Your task to perform on an android device: turn off priority inbox in the gmail app Image 0: 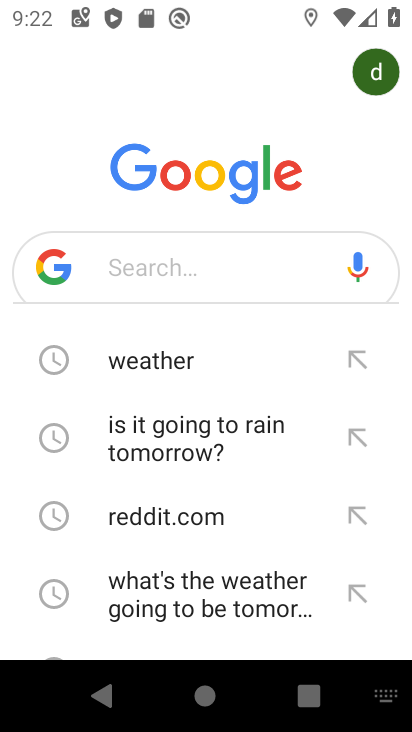
Step 0: press home button
Your task to perform on an android device: turn off priority inbox in the gmail app Image 1: 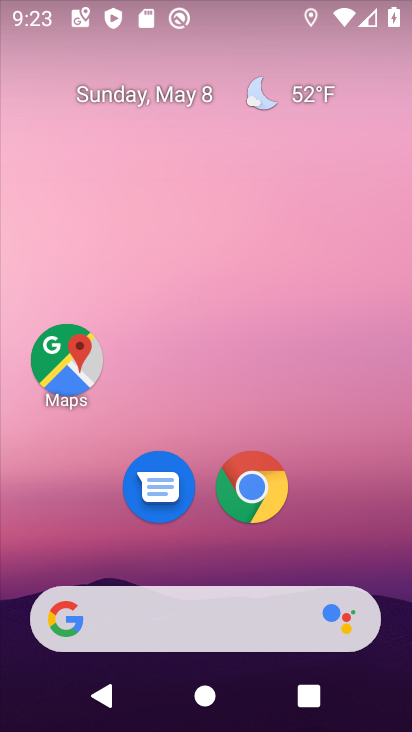
Step 1: drag from (386, 633) to (274, 55)
Your task to perform on an android device: turn off priority inbox in the gmail app Image 2: 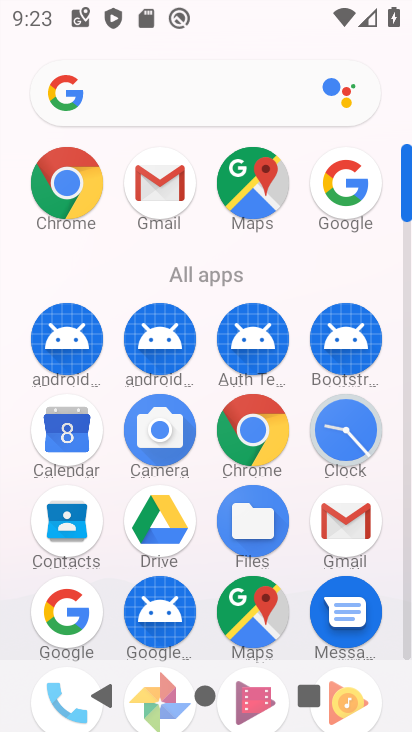
Step 2: click (369, 507)
Your task to perform on an android device: turn off priority inbox in the gmail app Image 3: 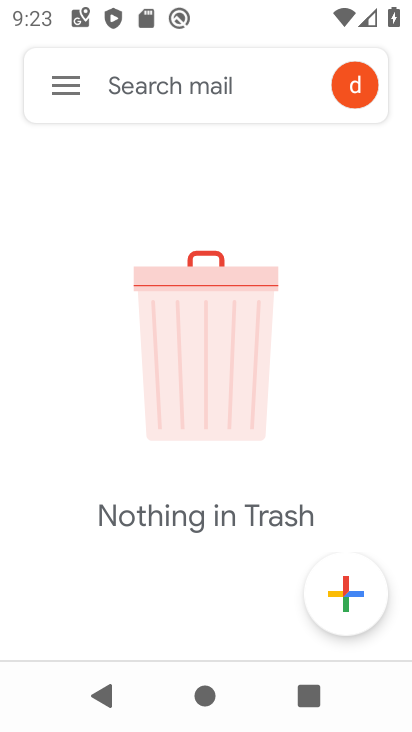
Step 3: click (70, 87)
Your task to perform on an android device: turn off priority inbox in the gmail app Image 4: 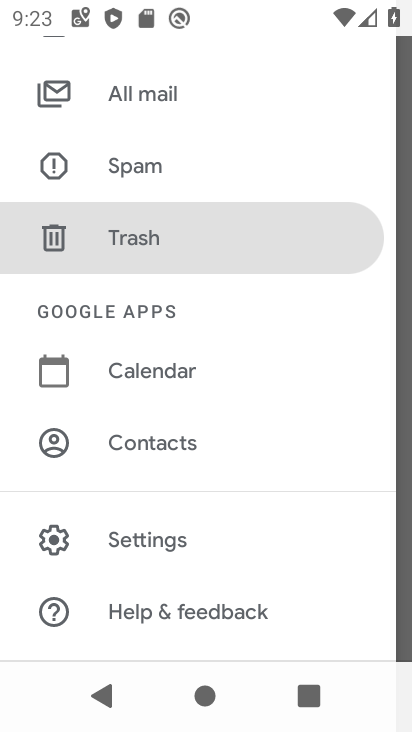
Step 4: click (176, 534)
Your task to perform on an android device: turn off priority inbox in the gmail app Image 5: 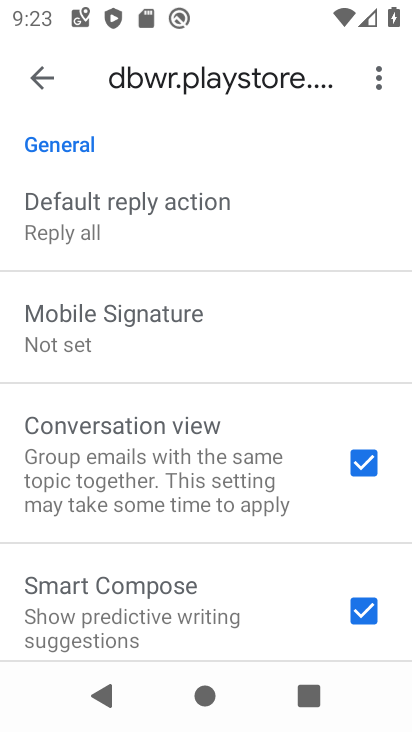
Step 5: drag from (108, 179) to (157, 668)
Your task to perform on an android device: turn off priority inbox in the gmail app Image 6: 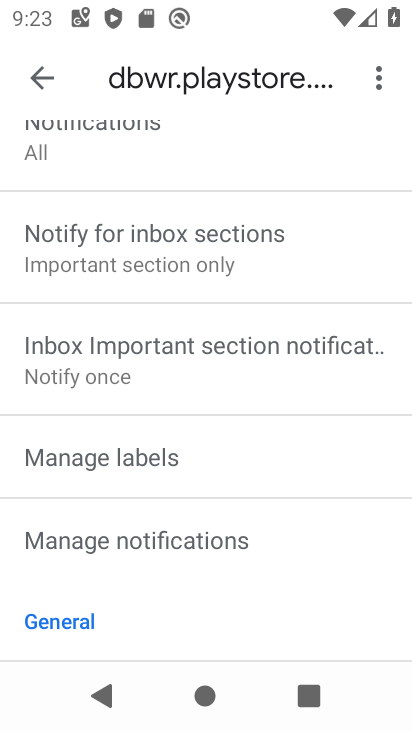
Step 6: drag from (99, 221) to (155, 636)
Your task to perform on an android device: turn off priority inbox in the gmail app Image 7: 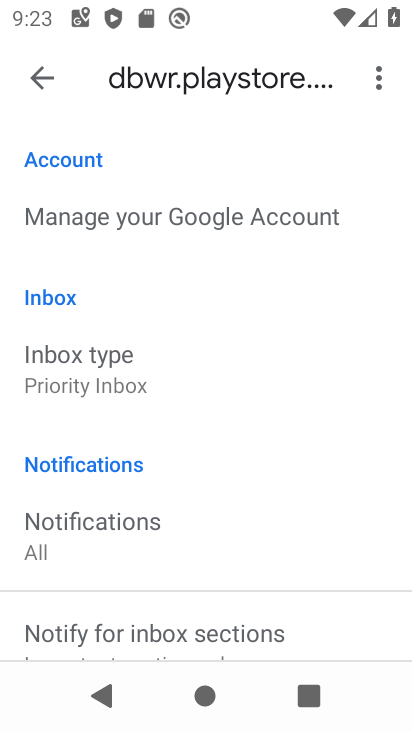
Step 7: click (105, 391)
Your task to perform on an android device: turn off priority inbox in the gmail app Image 8: 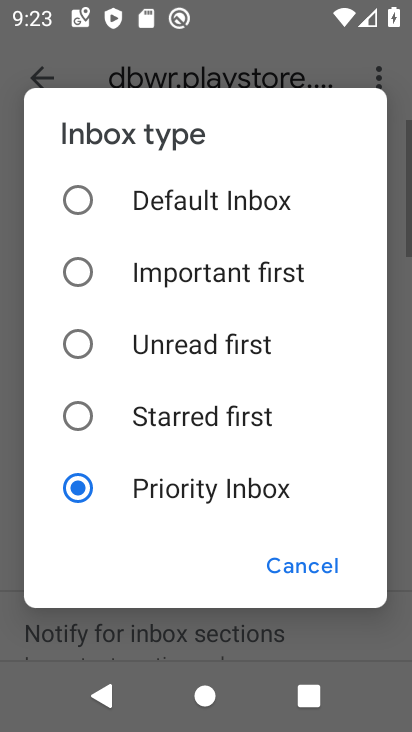
Step 8: click (138, 413)
Your task to perform on an android device: turn off priority inbox in the gmail app Image 9: 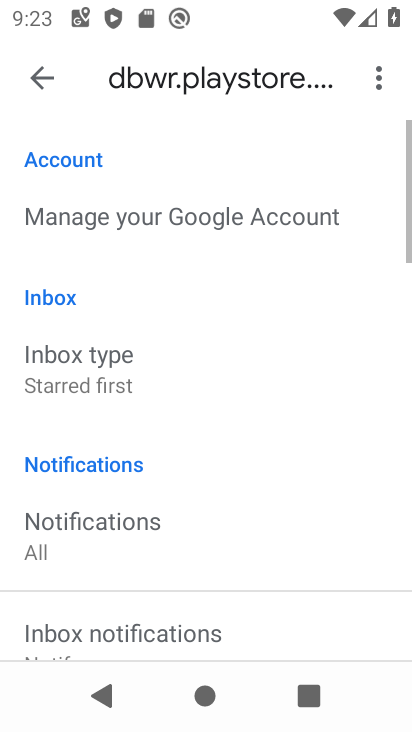
Step 9: task complete